Your task to perform on an android device: Open Yahoo.com Image 0: 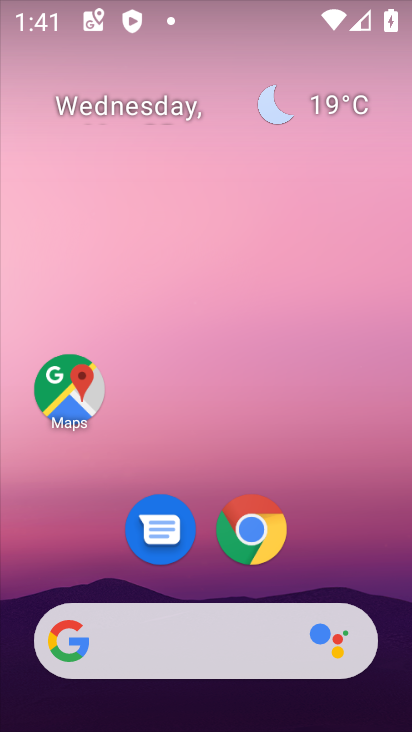
Step 0: click (249, 509)
Your task to perform on an android device: Open Yahoo.com Image 1: 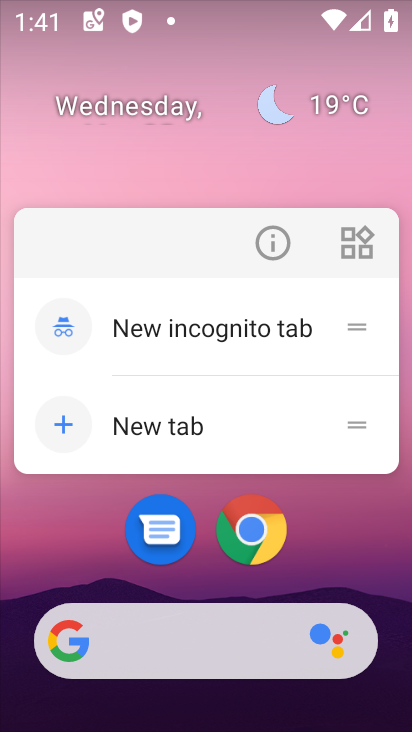
Step 1: click (259, 522)
Your task to perform on an android device: Open Yahoo.com Image 2: 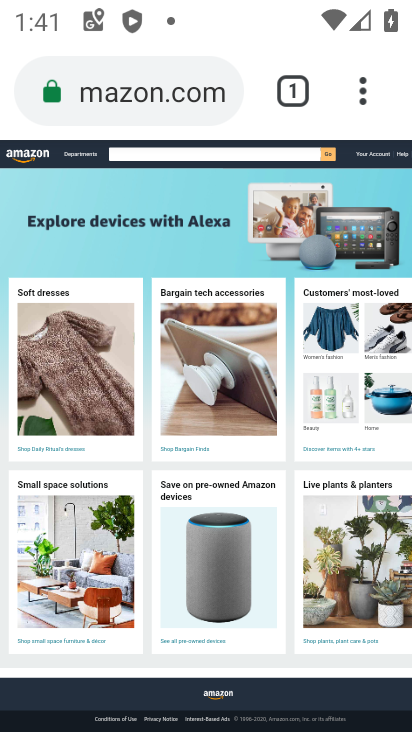
Step 2: drag from (382, 103) to (352, 195)
Your task to perform on an android device: Open Yahoo.com Image 3: 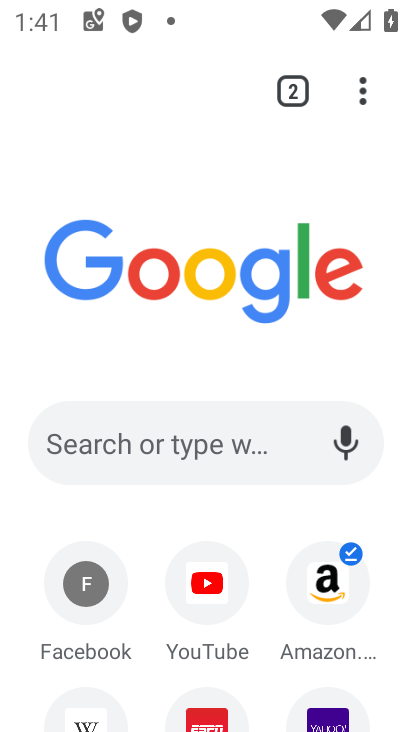
Step 3: click (307, 706)
Your task to perform on an android device: Open Yahoo.com Image 4: 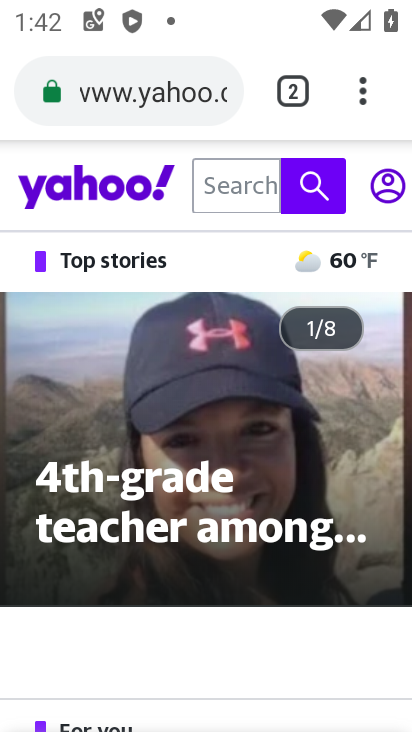
Step 4: task complete